Your task to perform on an android device: Open Google Chrome and open the bookmarks view Image 0: 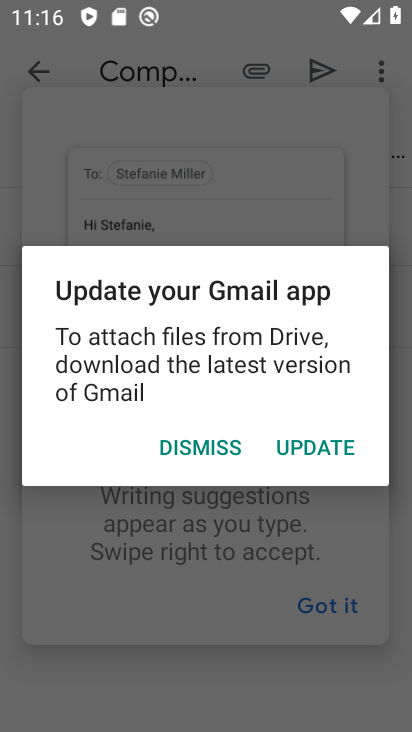
Step 0: press home button
Your task to perform on an android device: Open Google Chrome and open the bookmarks view Image 1: 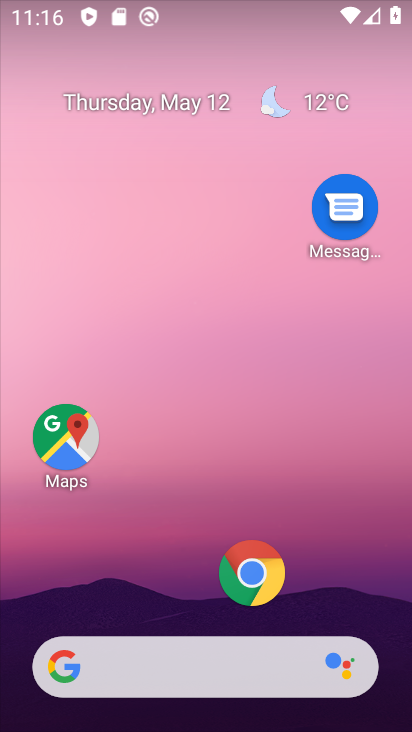
Step 1: drag from (366, 583) to (341, 140)
Your task to perform on an android device: Open Google Chrome and open the bookmarks view Image 2: 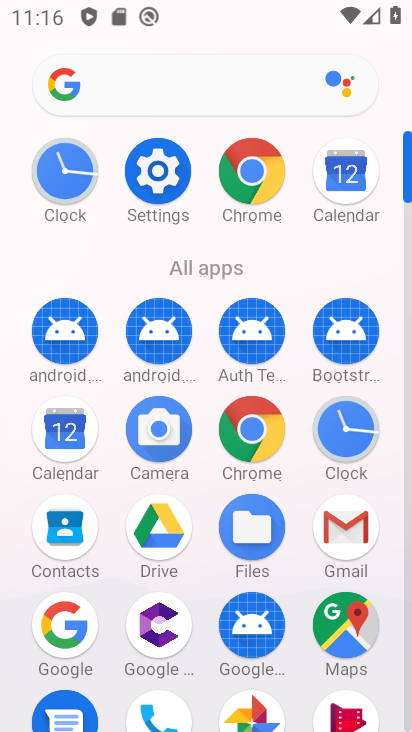
Step 2: click (251, 173)
Your task to perform on an android device: Open Google Chrome and open the bookmarks view Image 3: 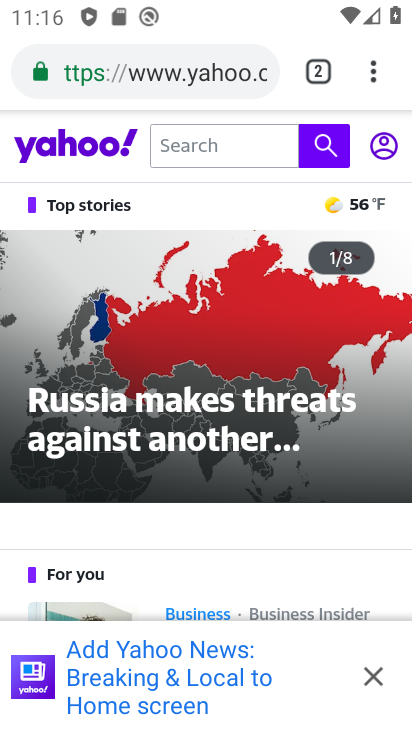
Step 3: task complete